Your task to perform on an android device: check android version Image 0: 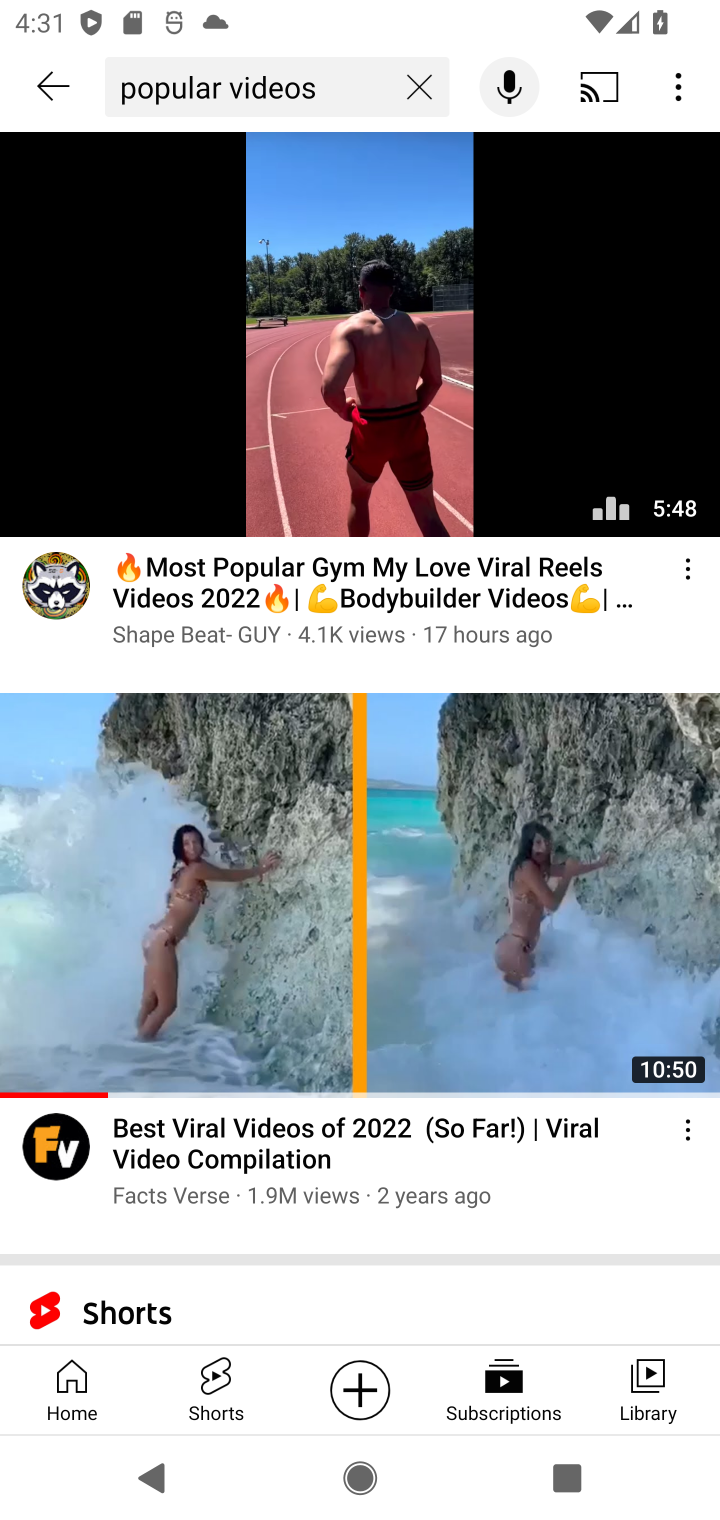
Step 0: press home button
Your task to perform on an android device: check android version Image 1: 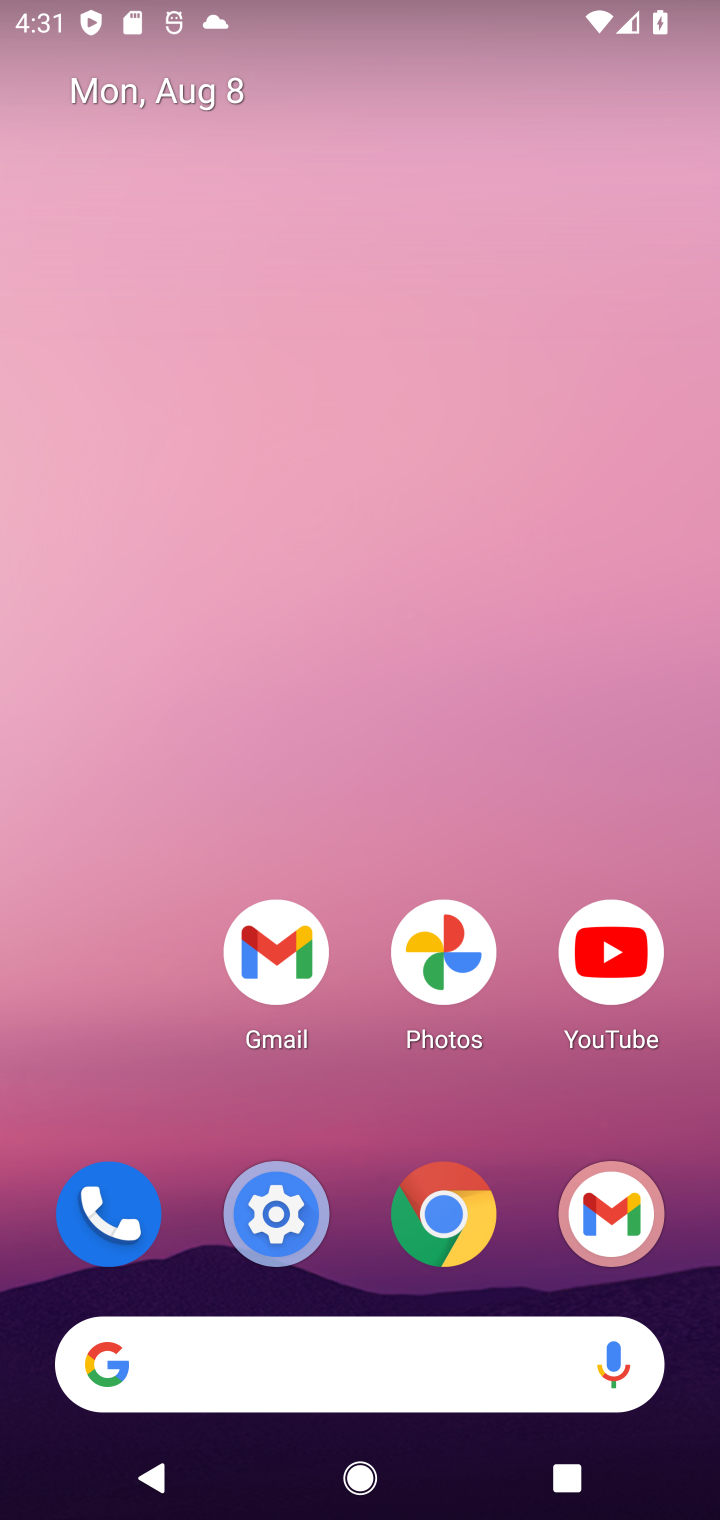
Step 1: drag from (362, 1150) to (365, 140)
Your task to perform on an android device: check android version Image 2: 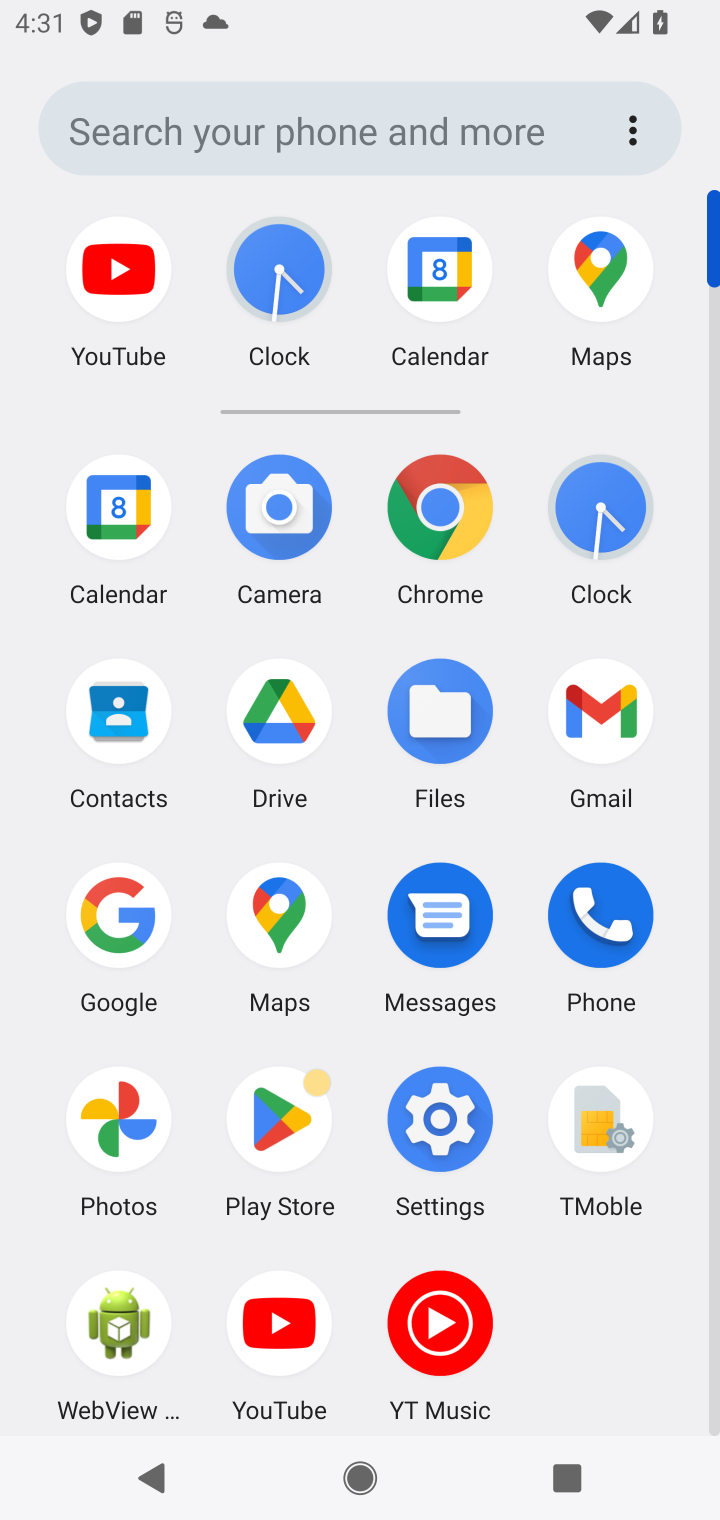
Step 2: click (431, 1128)
Your task to perform on an android device: check android version Image 3: 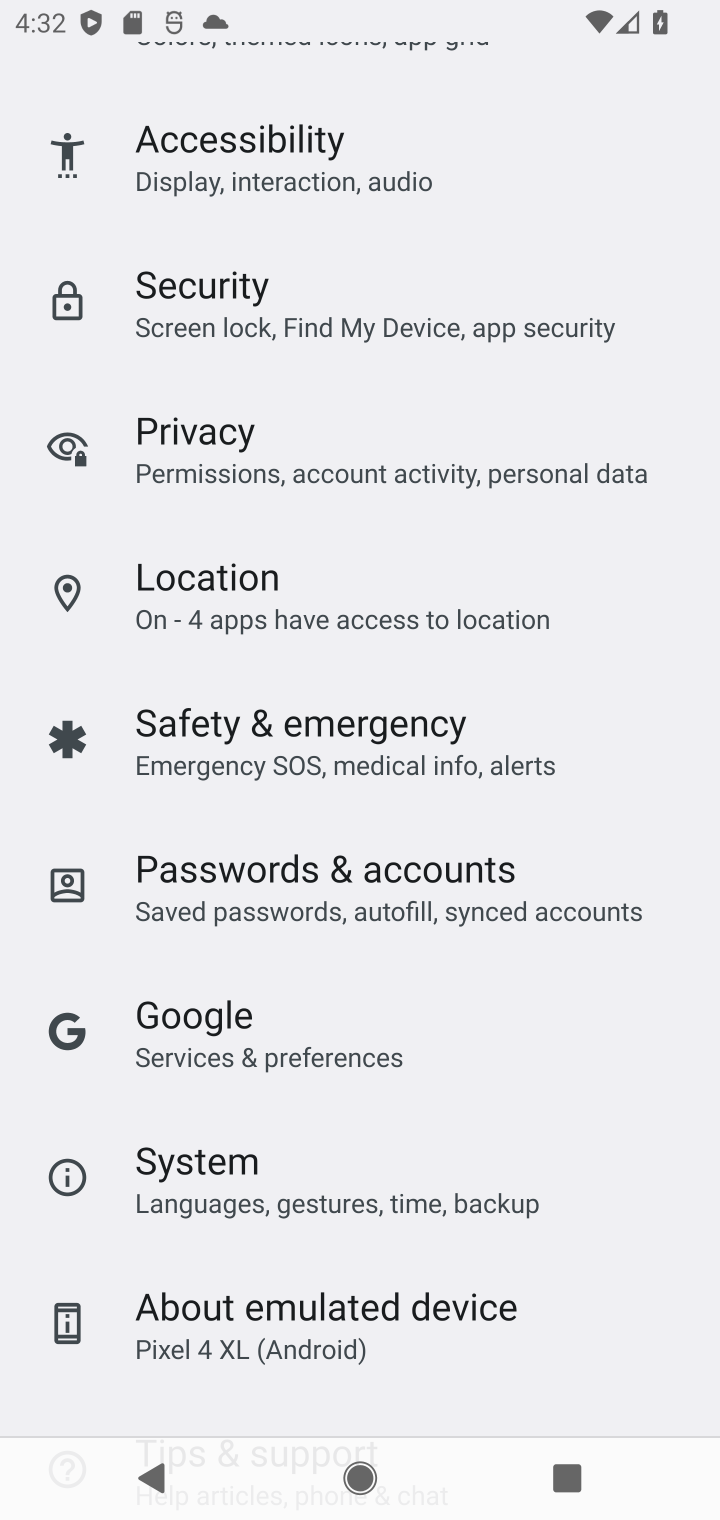
Step 3: drag from (226, 1230) to (221, 508)
Your task to perform on an android device: check android version Image 4: 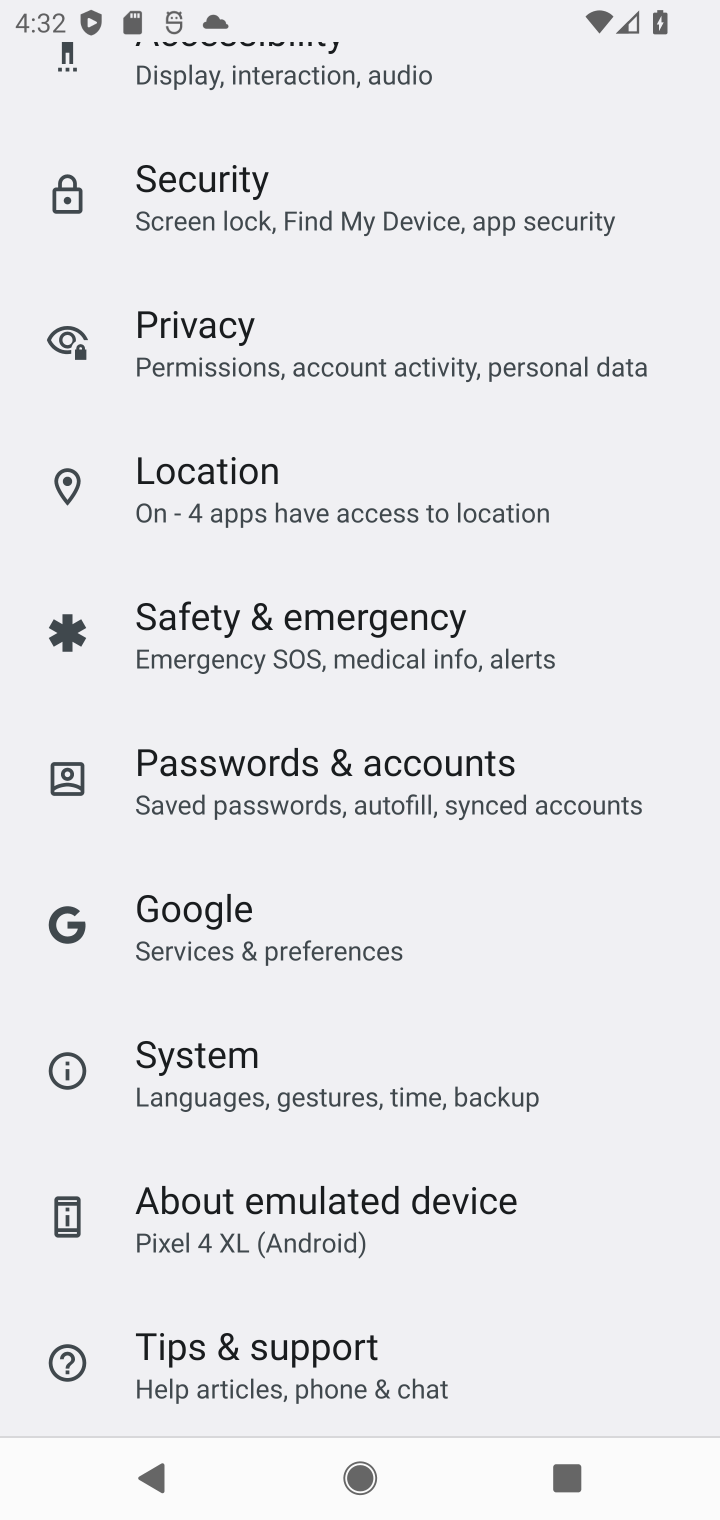
Step 4: drag from (263, 1281) to (263, 592)
Your task to perform on an android device: check android version Image 5: 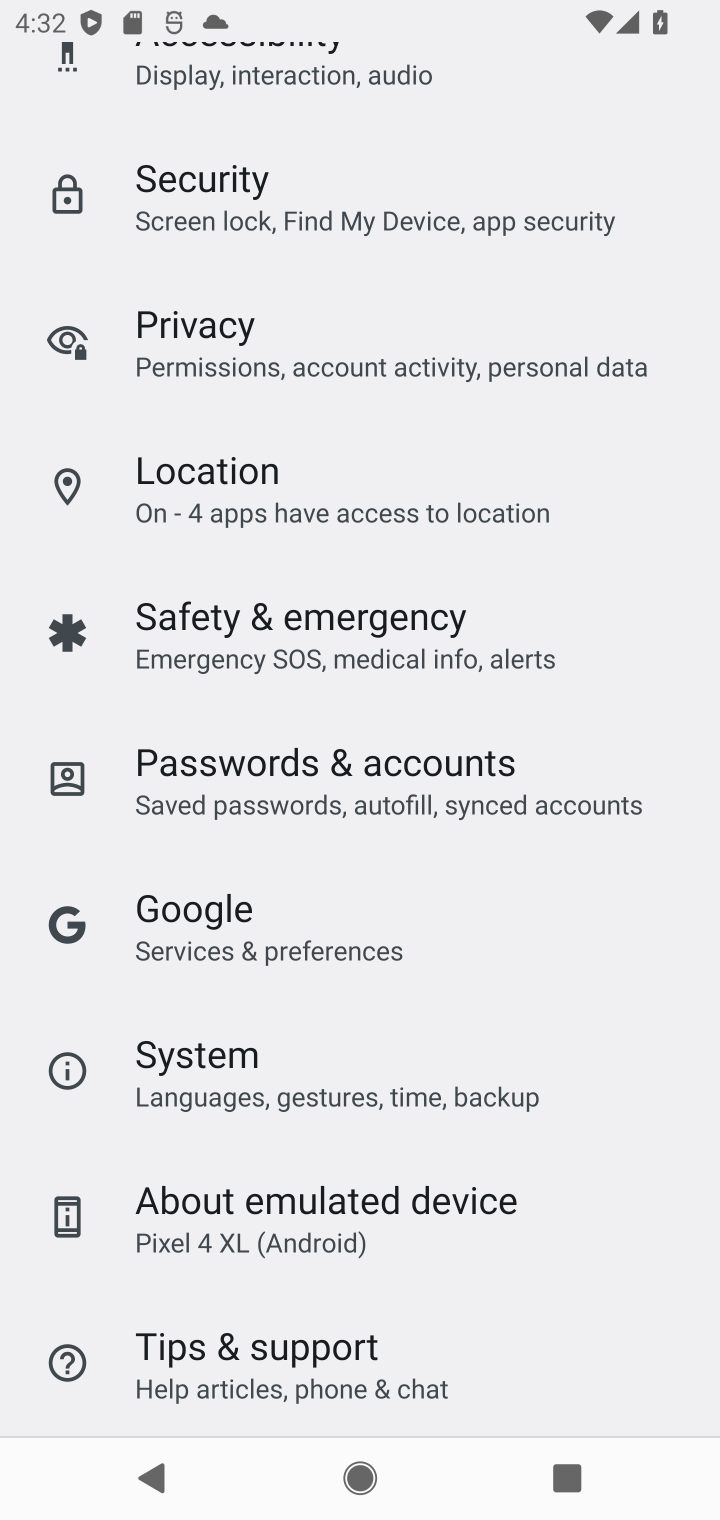
Step 5: click (237, 1215)
Your task to perform on an android device: check android version Image 6: 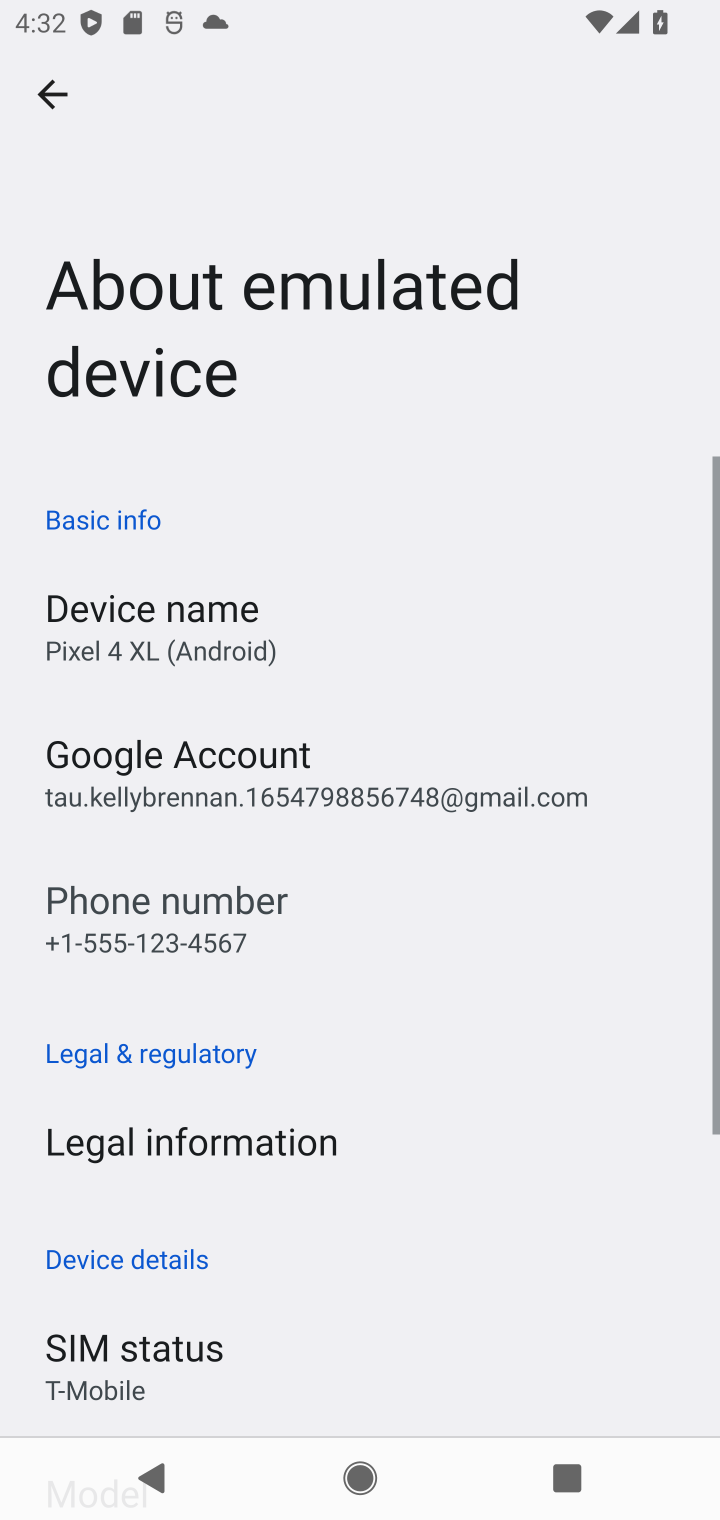
Step 6: drag from (239, 1277) to (244, 585)
Your task to perform on an android device: check android version Image 7: 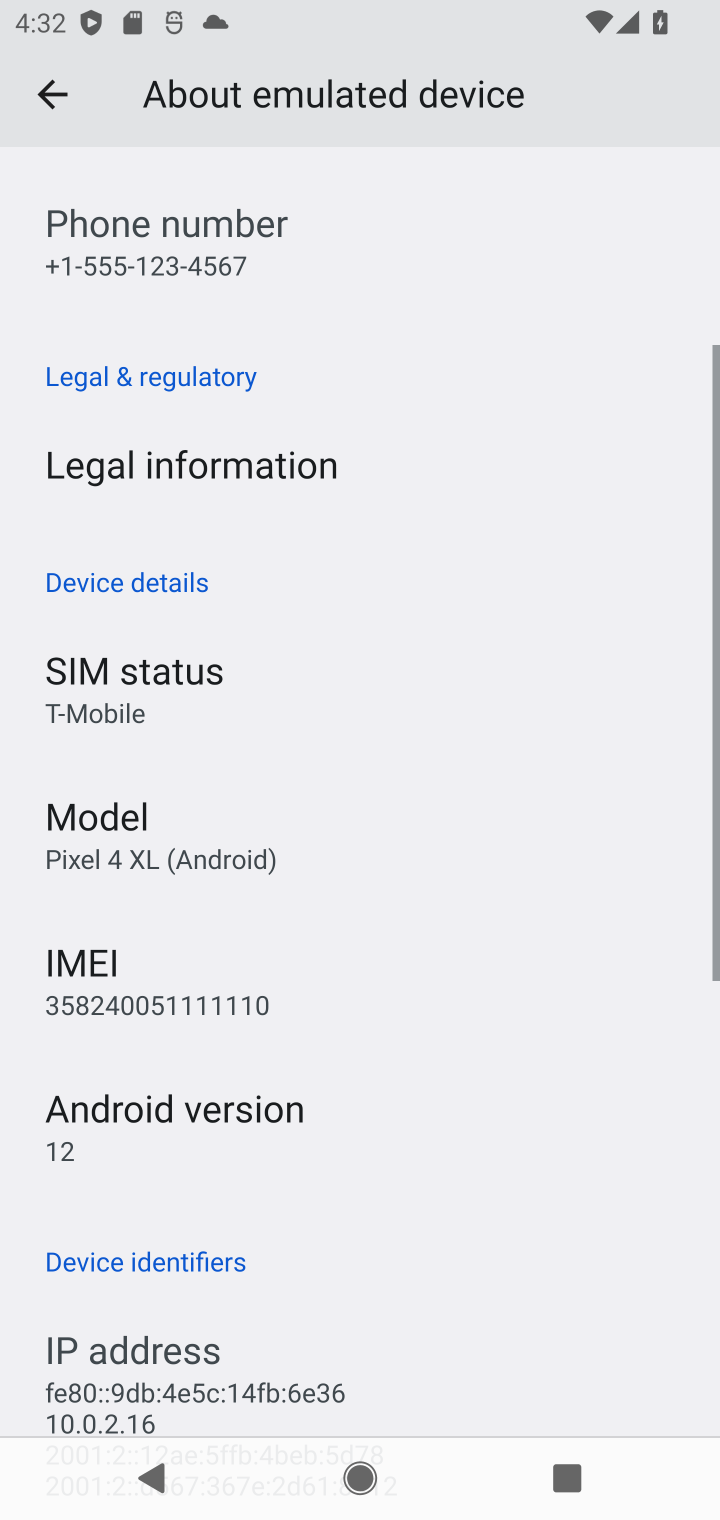
Step 7: click (183, 1112)
Your task to perform on an android device: check android version Image 8: 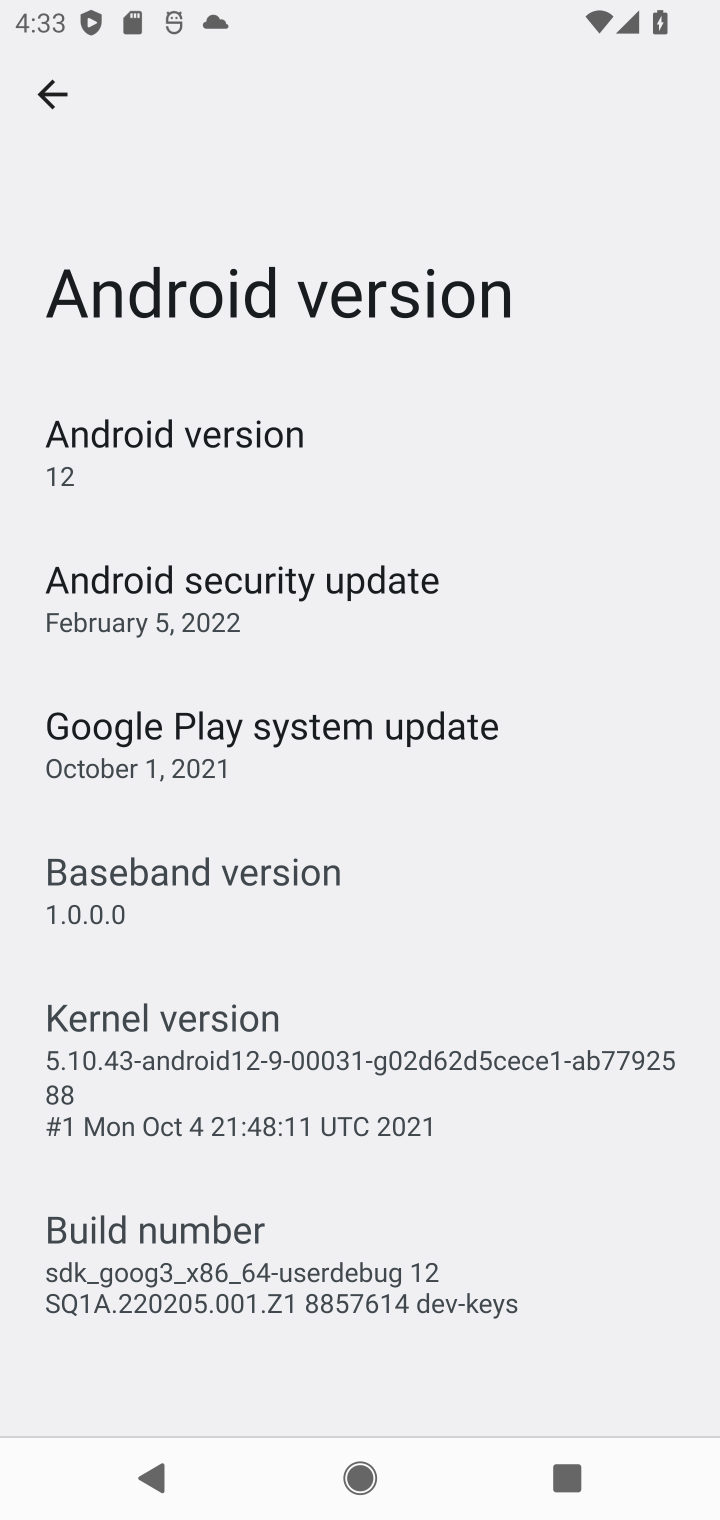
Step 8: task complete